Your task to perform on an android device: all mails in gmail Image 0: 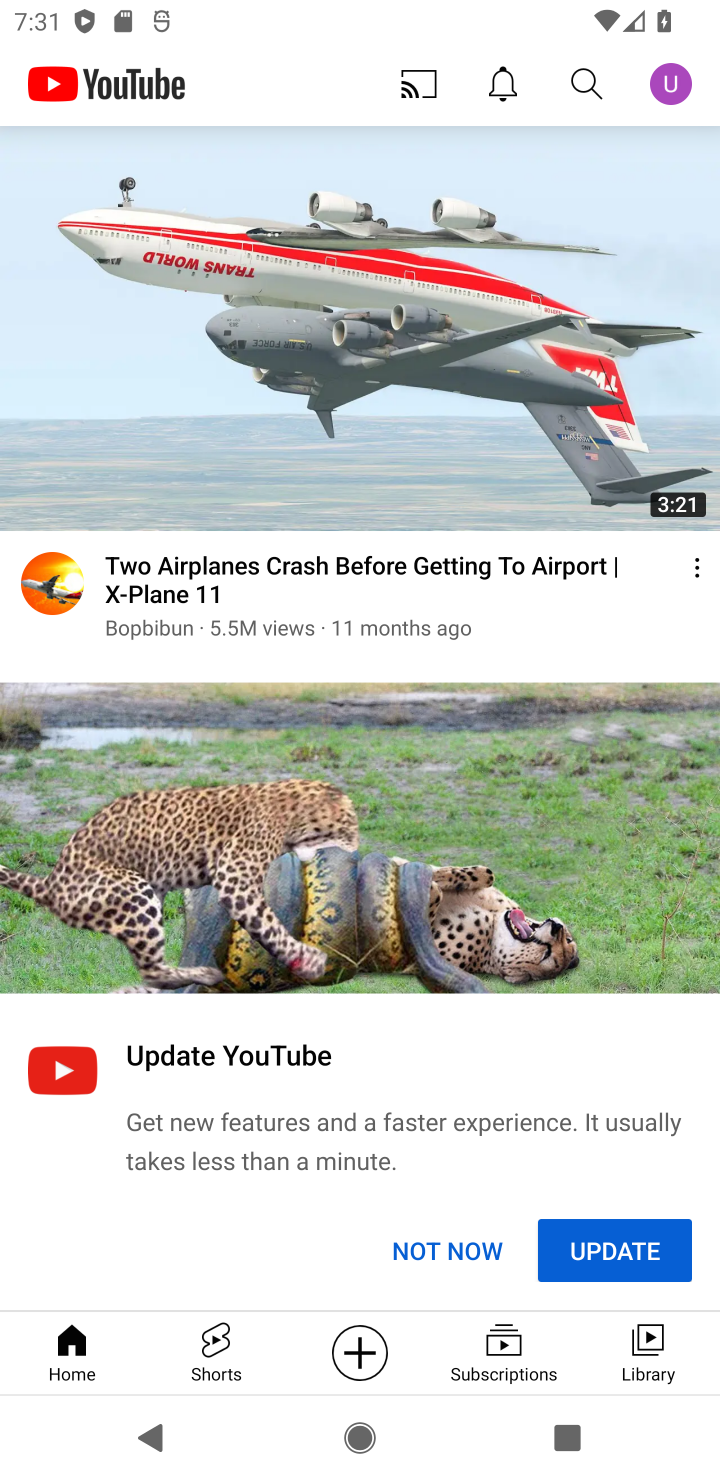
Step 0: press back button
Your task to perform on an android device: all mails in gmail Image 1: 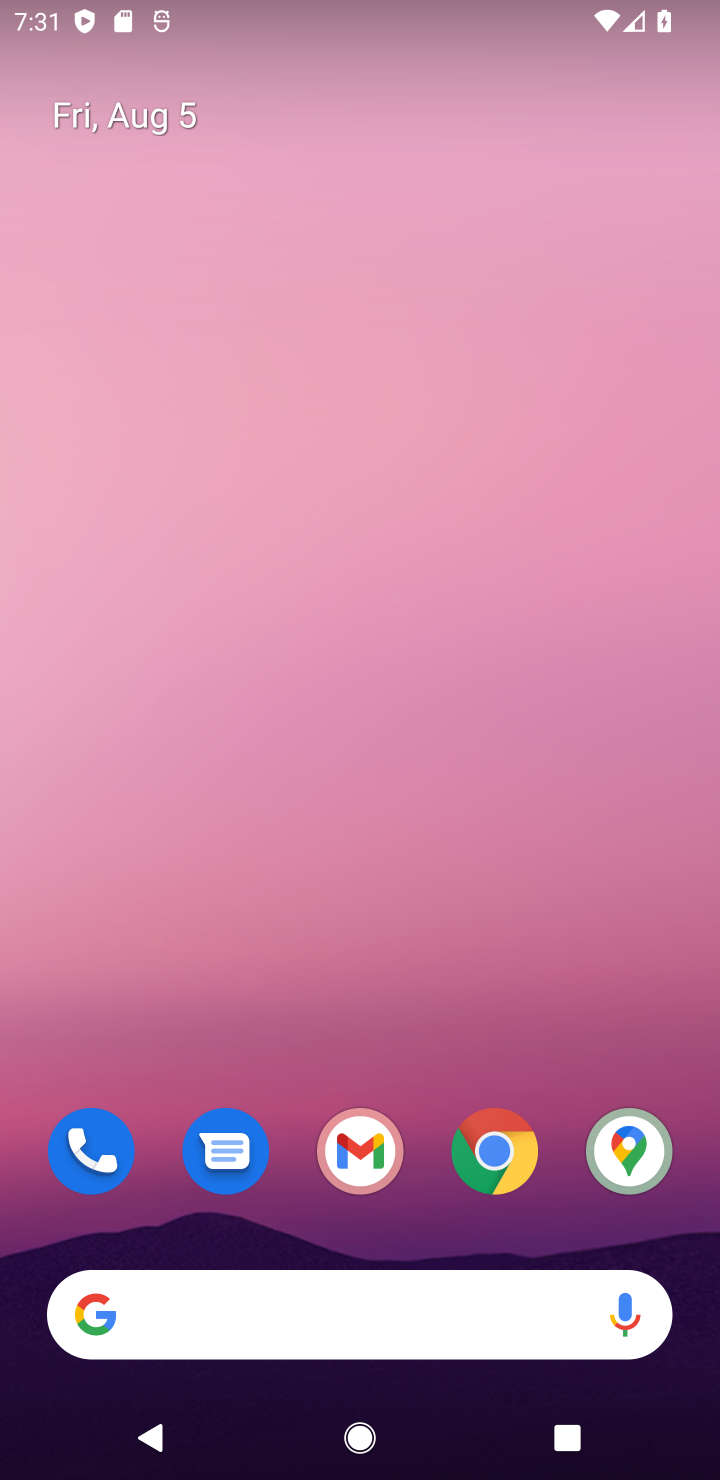
Step 1: press home button
Your task to perform on an android device: all mails in gmail Image 2: 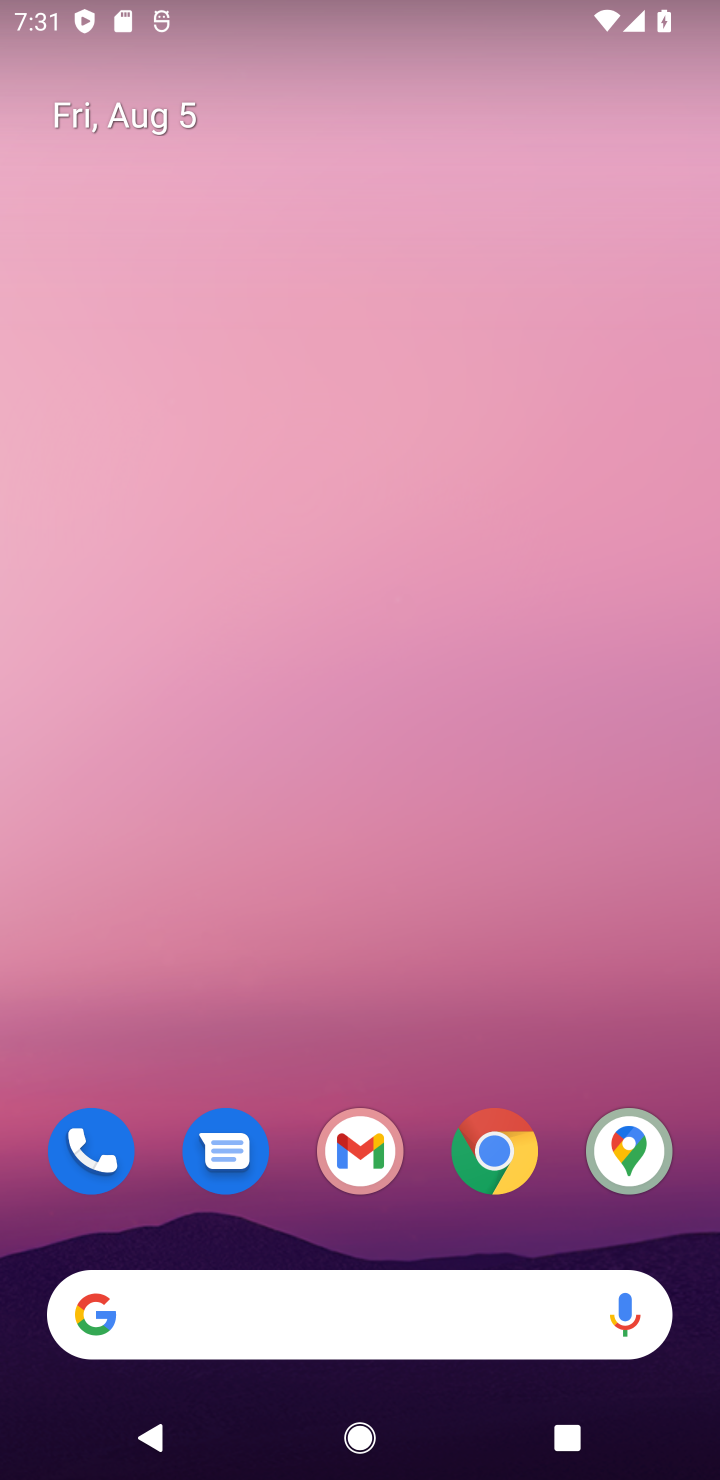
Step 2: click (356, 1164)
Your task to perform on an android device: all mails in gmail Image 3: 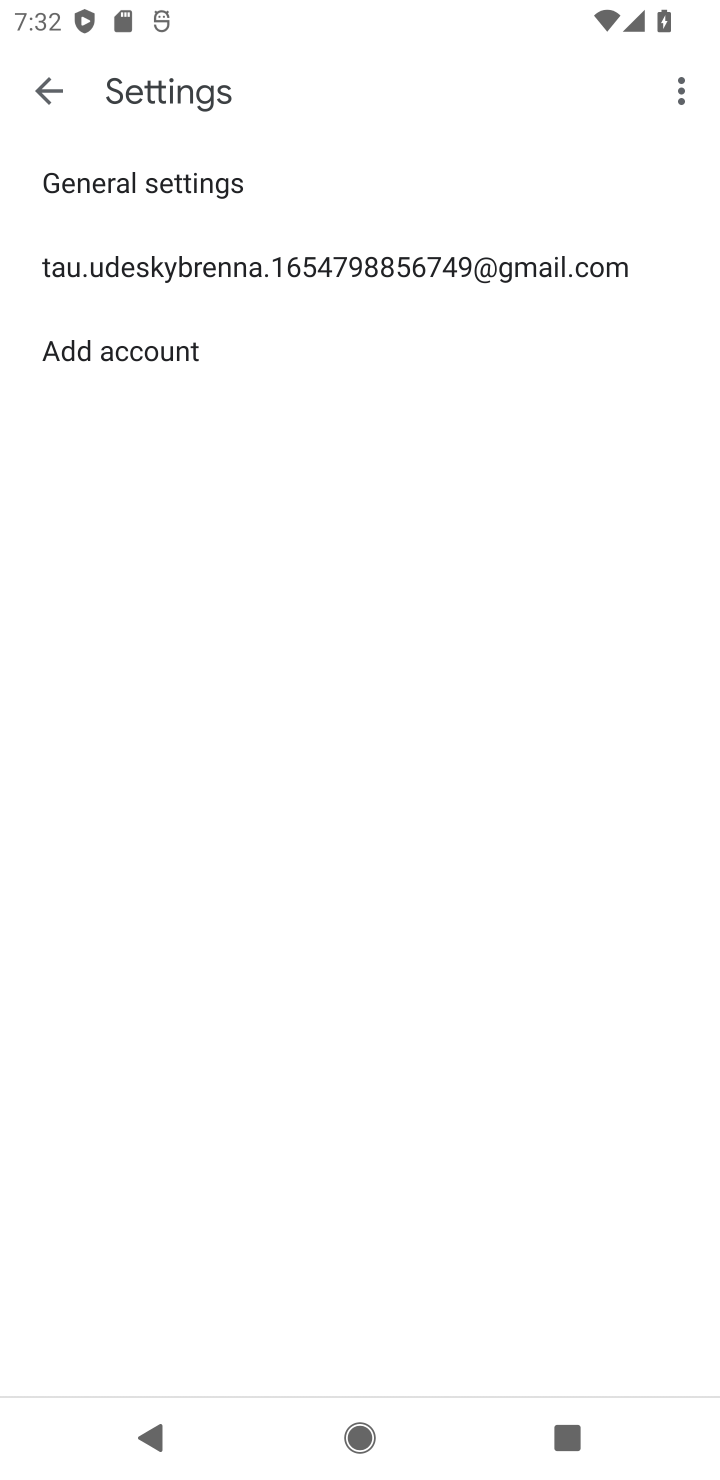
Step 3: click (46, 60)
Your task to perform on an android device: all mails in gmail Image 4: 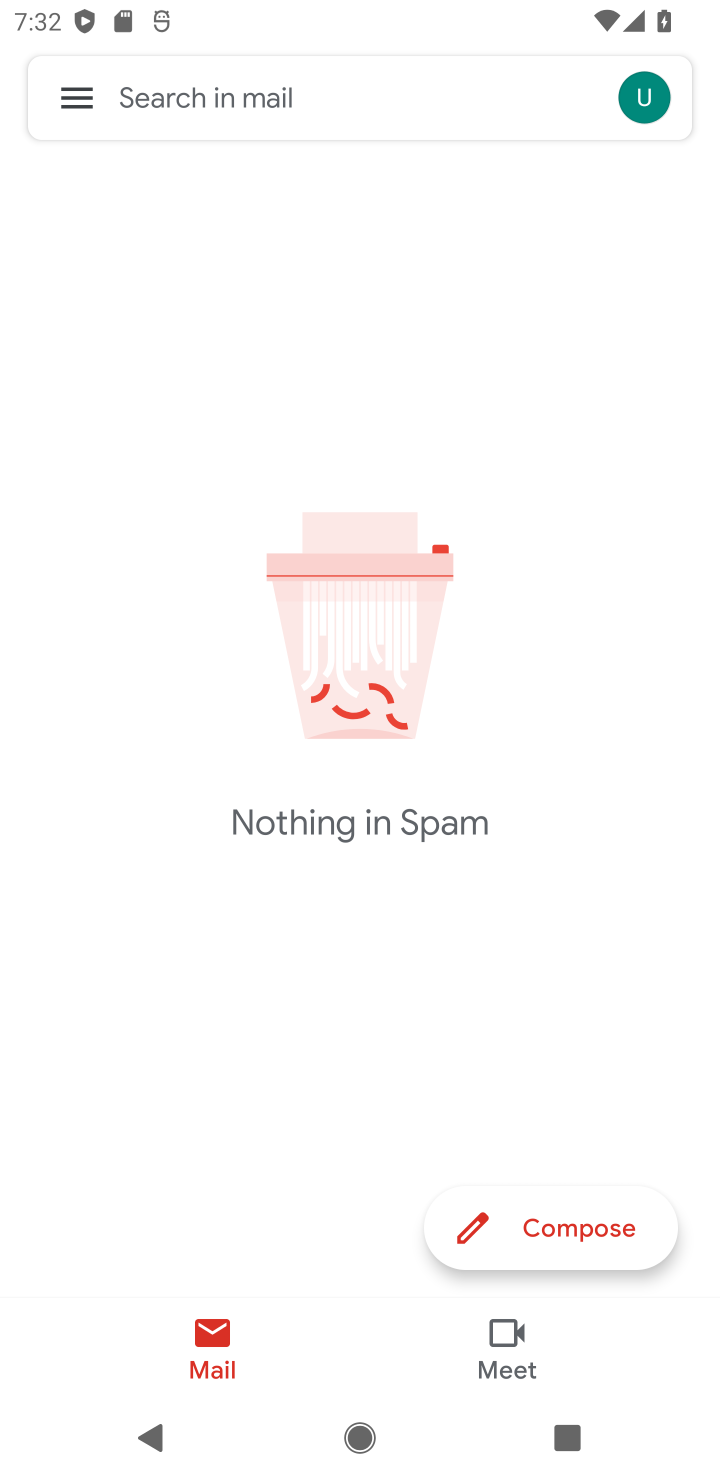
Step 4: click (49, 86)
Your task to perform on an android device: all mails in gmail Image 5: 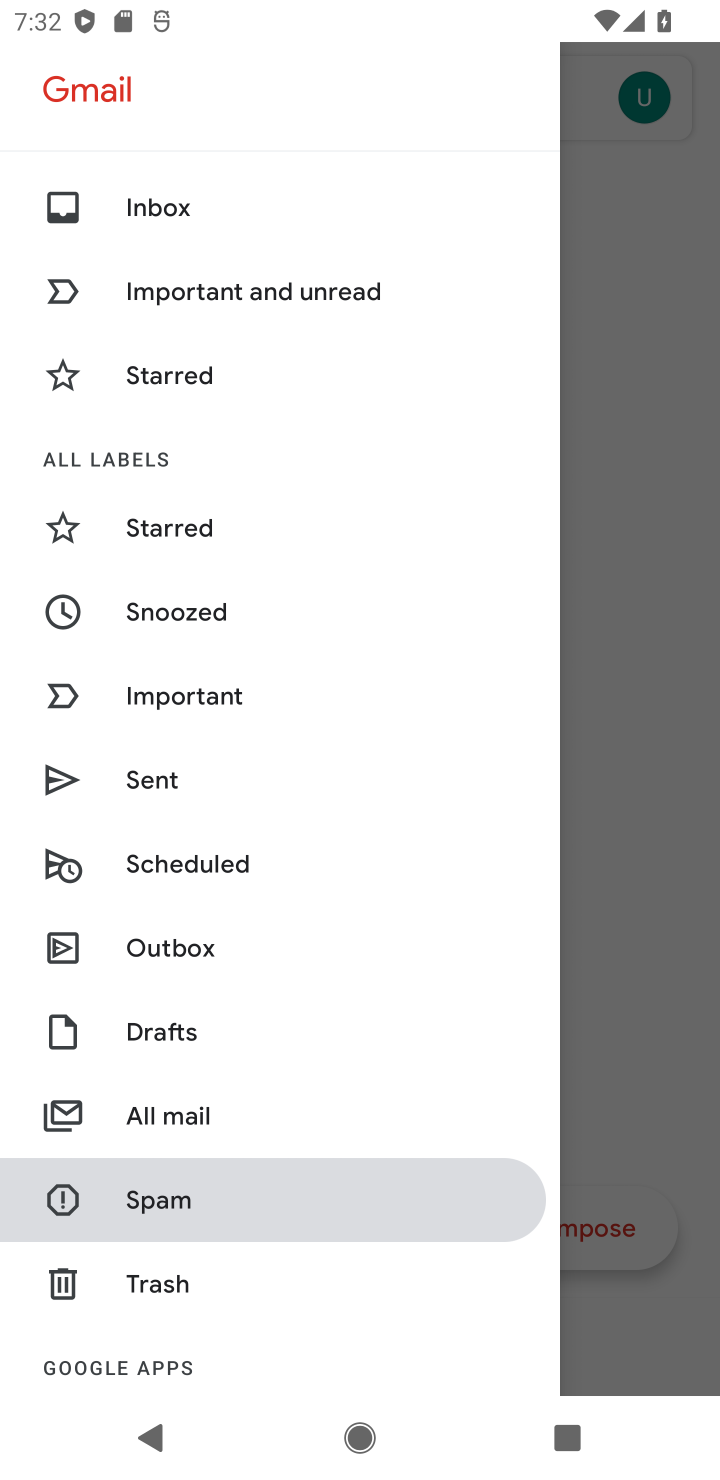
Step 5: click (222, 1134)
Your task to perform on an android device: all mails in gmail Image 6: 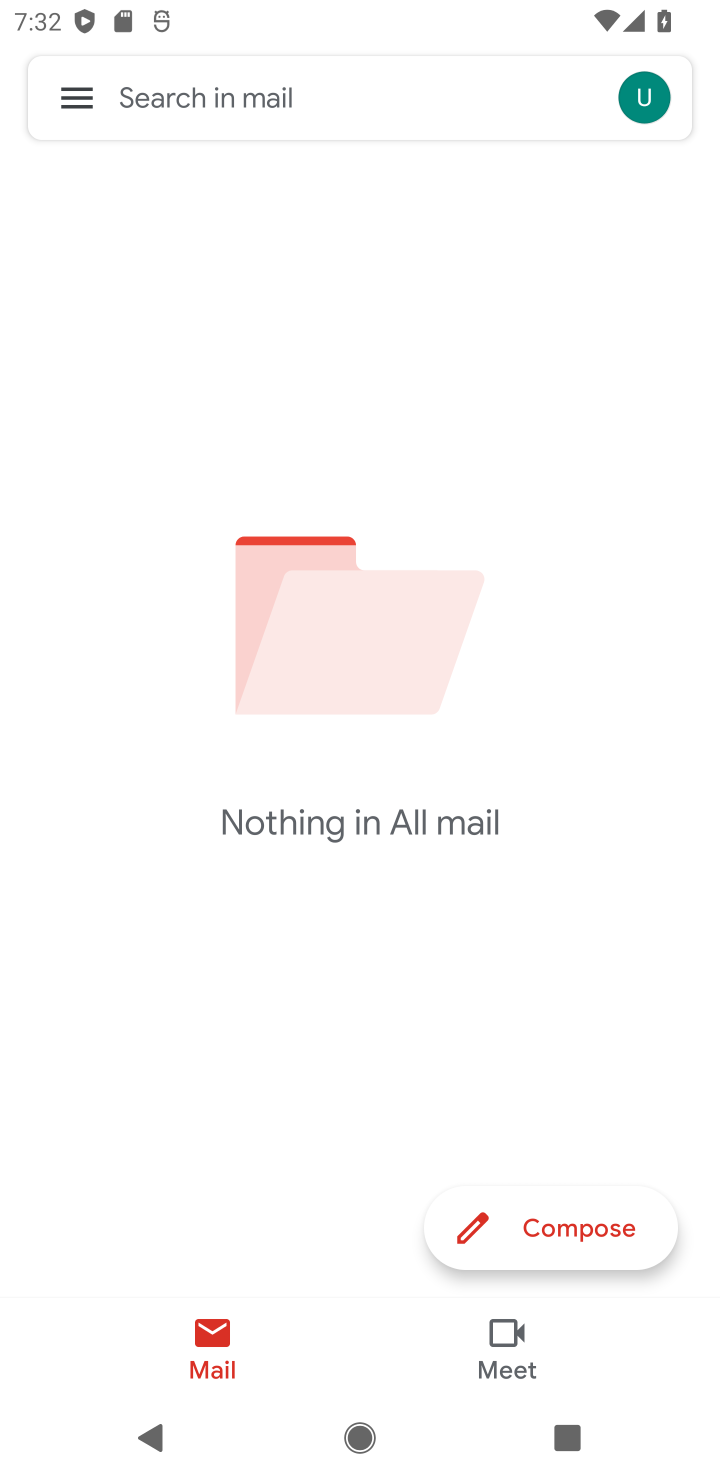
Step 6: task complete